Your task to perform on an android device: toggle translation in the chrome app Image 0: 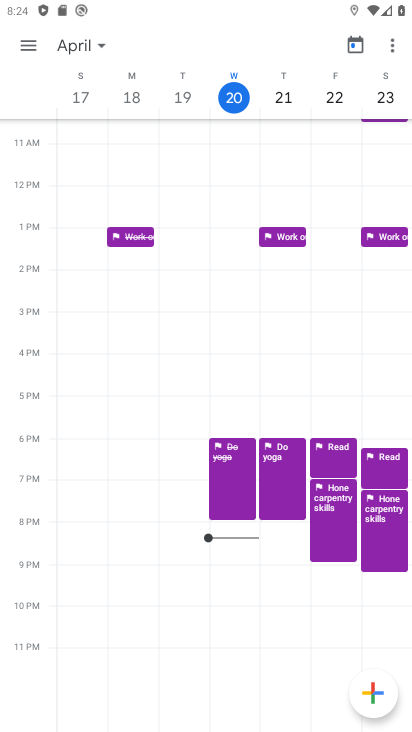
Step 0: press home button
Your task to perform on an android device: toggle translation in the chrome app Image 1: 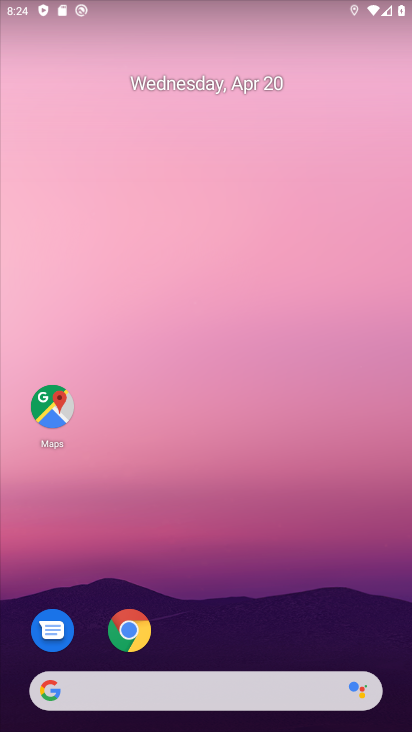
Step 1: click (130, 626)
Your task to perform on an android device: toggle translation in the chrome app Image 2: 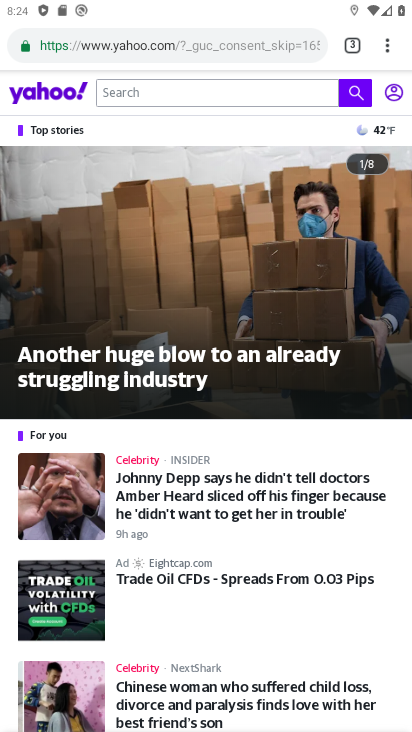
Step 2: click (386, 43)
Your task to perform on an android device: toggle translation in the chrome app Image 3: 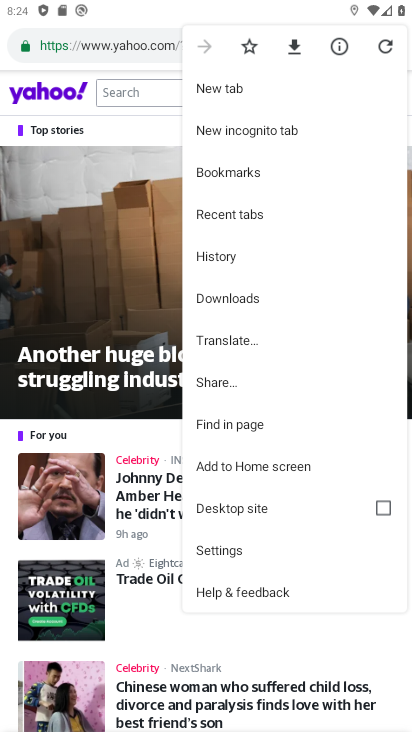
Step 3: click (225, 552)
Your task to perform on an android device: toggle translation in the chrome app Image 4: 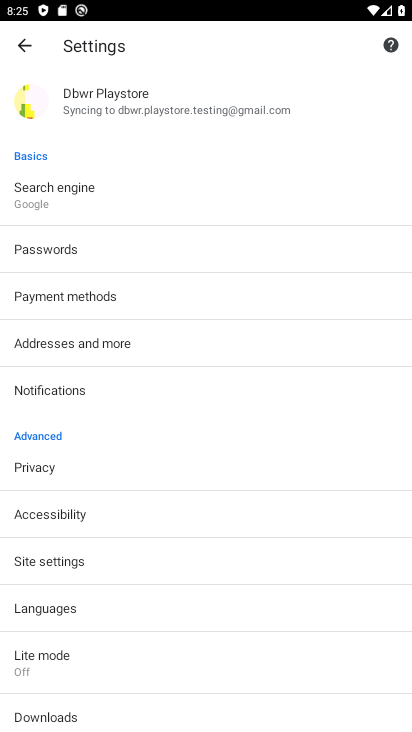
Step 4: click (54, 603)
Your task to perform on an android device: toggle translation in the chrome app Image 5: 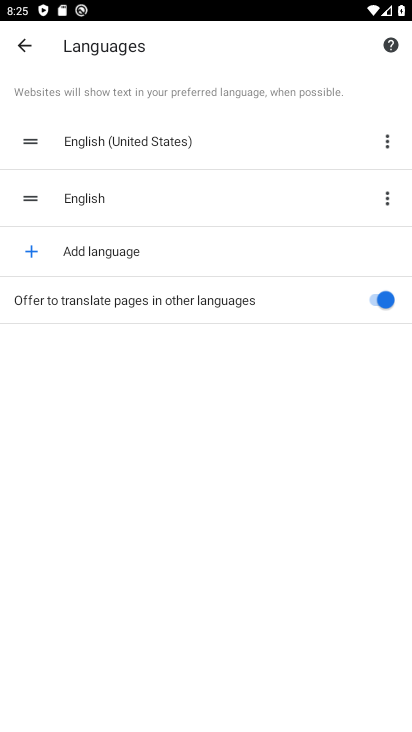
Step 5: click (367, 299)
Your task to perform on an android device: toggle translation in the chrome app Image 6: 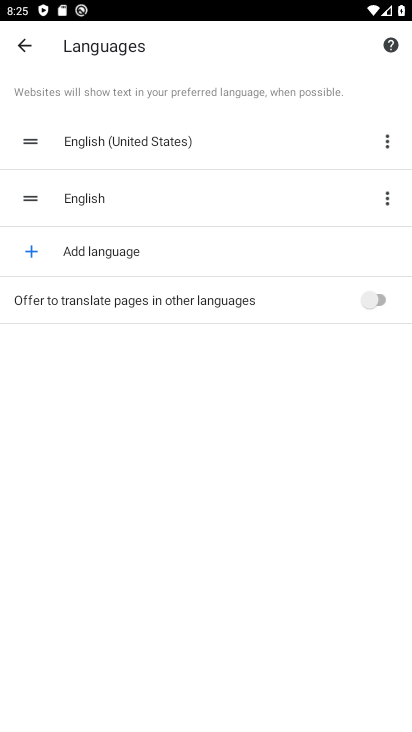
Step 6: task complete